Your task to perform on an android device: Open calendar and show me the fourth week of next month Image 0: 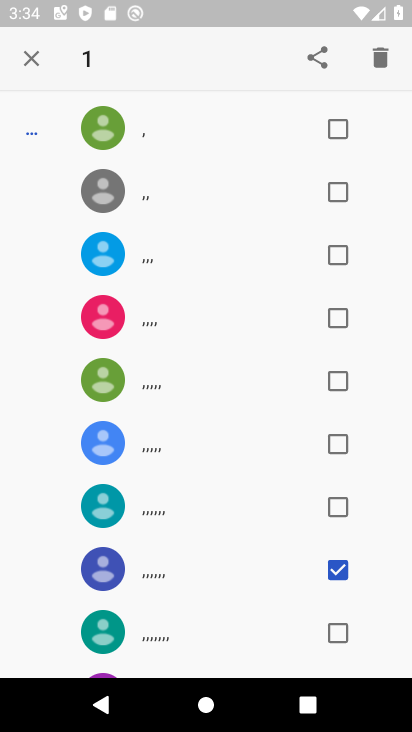
Step 0: press home button
Your task to perform on an android device: Open calendar and show me the fourth week of next month Image 1: 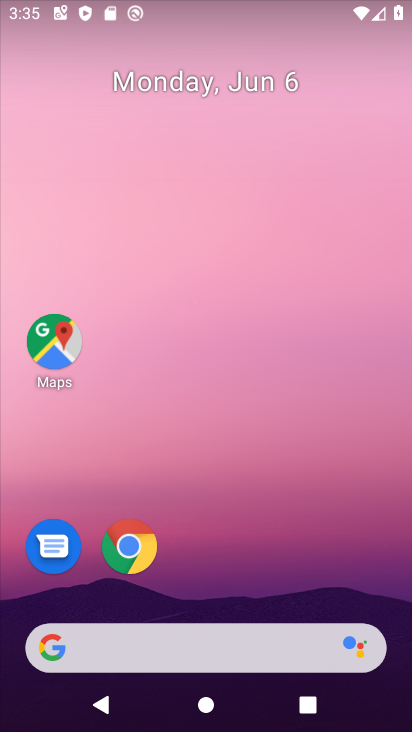
Step 1: drag from (235, 591) to (255, 12)
Your task to perform on an android device: Open calendar and show me the fourth week of next month Image 2: 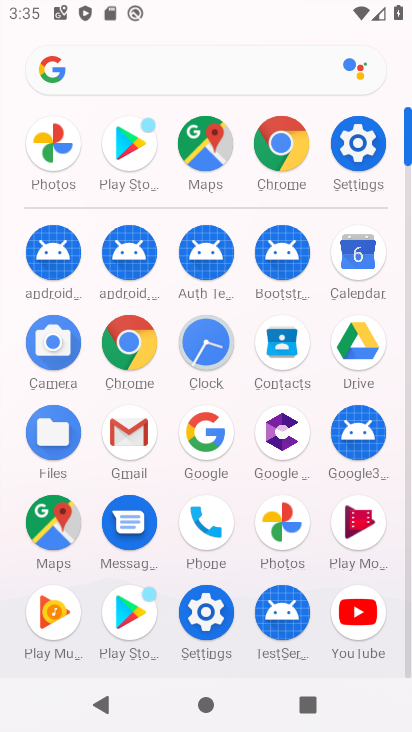
Step 2: click (361, 257)
Your task to perform on an android device: Open calendar and show me the fourth week of next month Image 3: 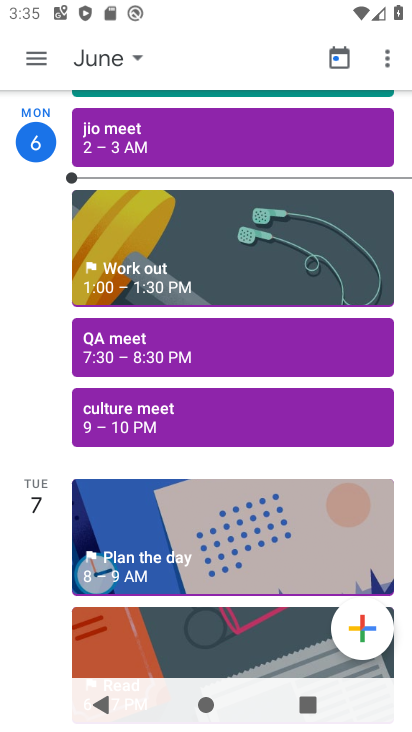
Step 3: task complete